Your task to perform on an android device: toggle data saver in the chrome app Image 0: 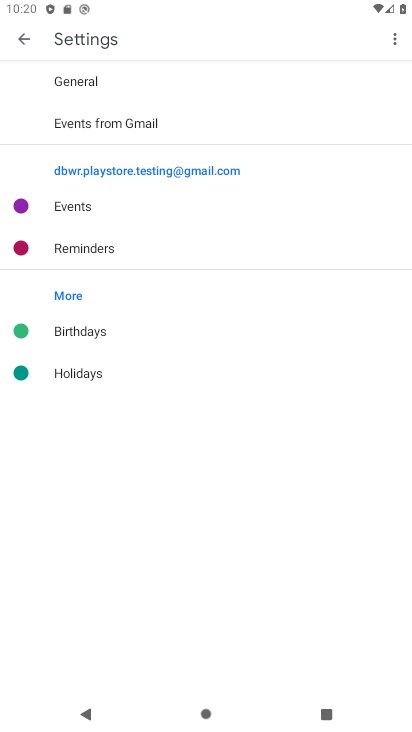
Step 0: press home button
Your task to perform on an android device: toggle data saver in the chrome app Image 1: 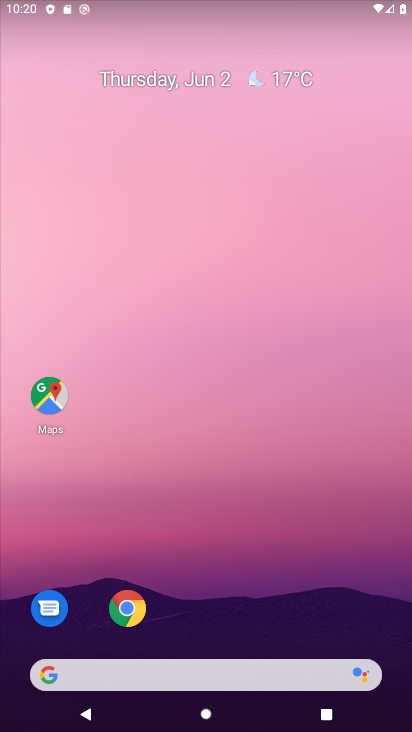
Step 1: click (131, 609)
Your task to perform on an android device: toggle data saver in the chrome app Image 2: 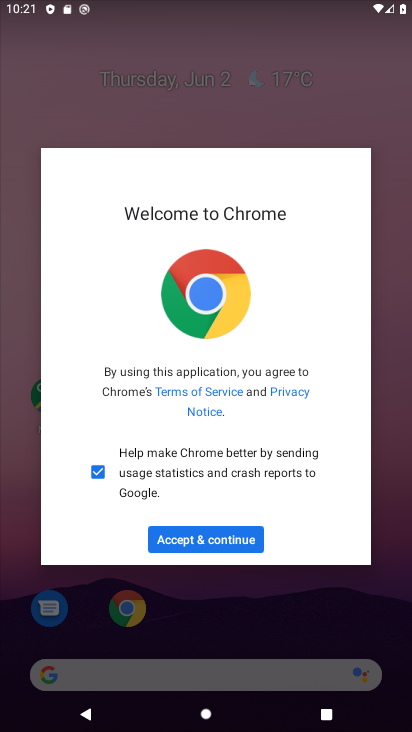
Step 2: click (216, 534)
Your task to perform on an android device: toggle data saver in the chrome app Image 3: 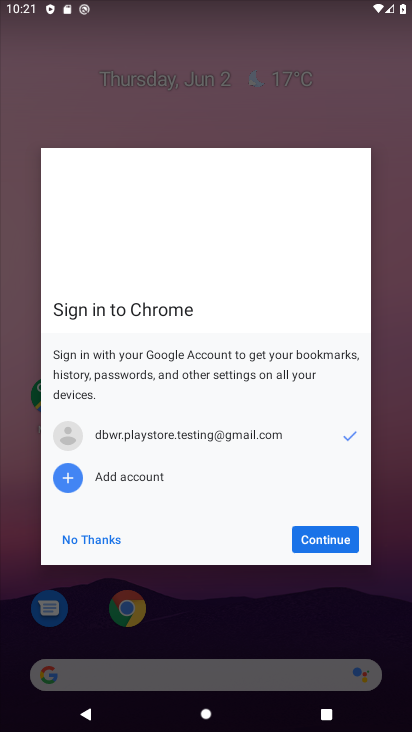
Step 3: click (335, 539)
Your task to perform on an android device: toggle data saver in the chrome app Image 4: 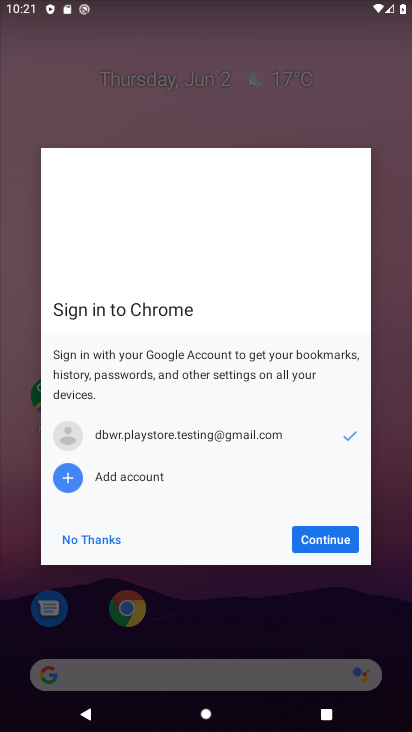
Step 4: click (335, 539)
Your task to perform on an android device: toggle data saver in the chrome app Image 5: 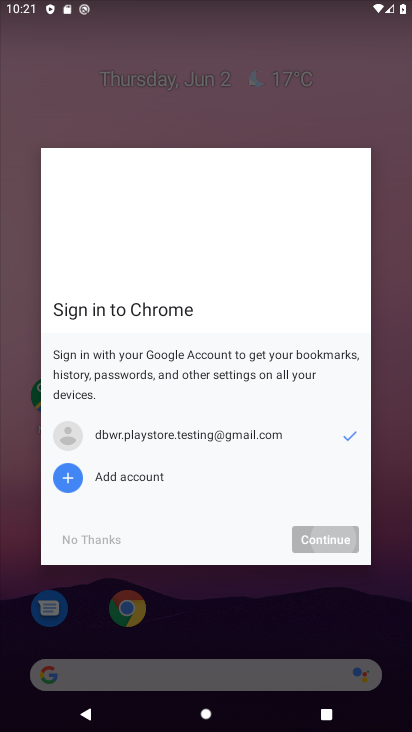
Step 5: click (335, 539)
Your task to perform on an android device: toggle data saver in the chrome app Image 6: 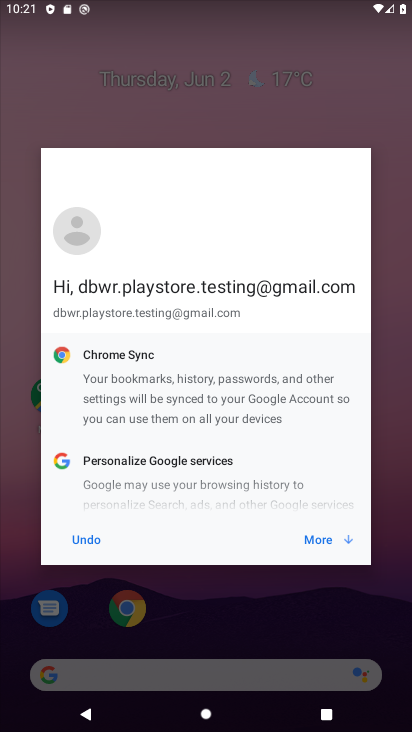
Step 6: click (335, 539)
Your task to perform on an android device: toggle data saver in the chrome app Image 7: 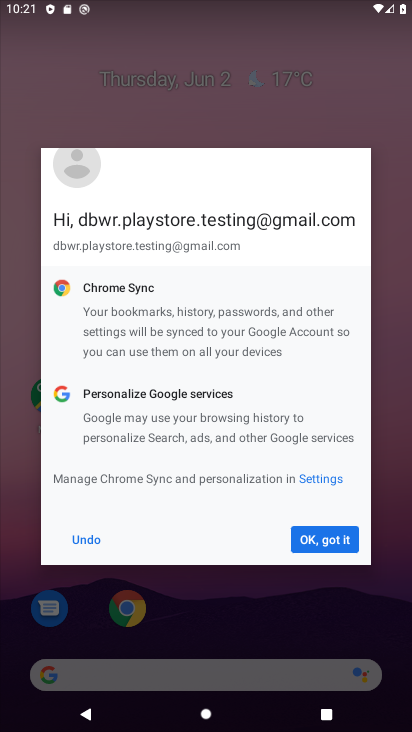
Step 7: click (335, 539)
Your task to perform on an android device: toggle data saver in the chrome app Image 8: 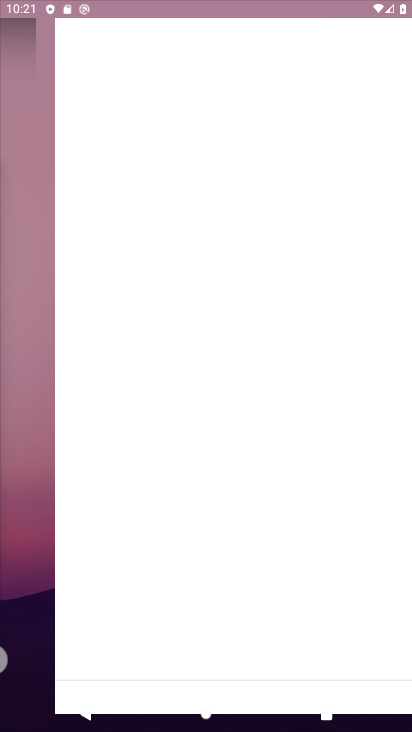
Step 8: click (335, 539)
Your task to perform on an android device: toggle data saver in the chrome app Image 9: 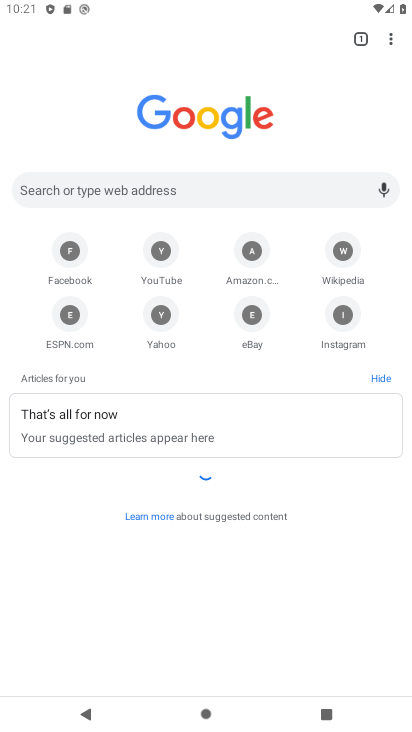
Step 9: click (389, 37)
Your task to perform on an android device: toggle data saver in the chrome app Image 10: 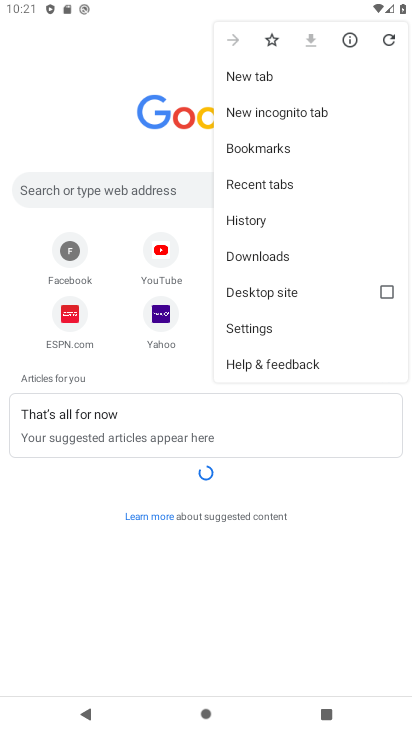
Step 10: click (268, 321)
Your task to perform on an android device: toggle data saver in the chrome app Image 11: 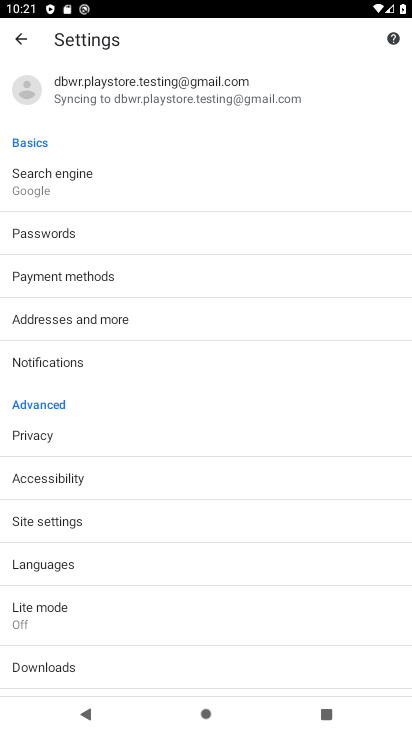
Step 11: click (125, 616)
Your task to perform on an android device: toggle data saver in the chrome app Image 12: 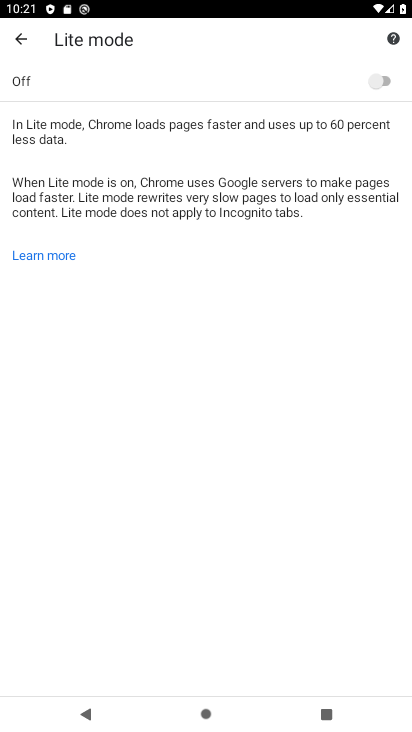
Step 12: click (368, 78)
Your task to perform on an android device: toggle data saver in the chrome app Image 13: 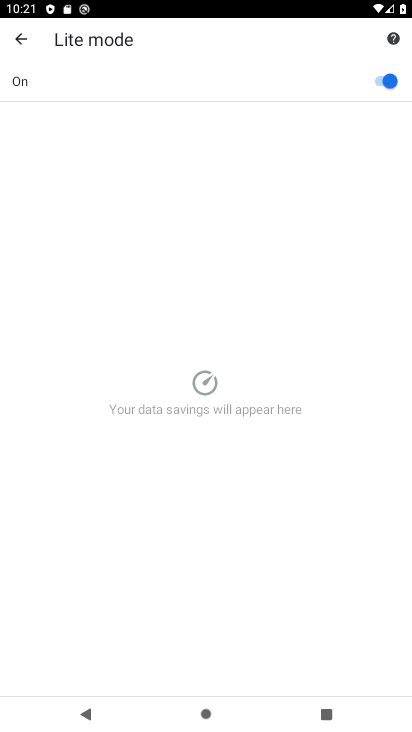
Step 13: task complete